Your task to perform on an android device: uninstall "Google Calendar" Image 0: 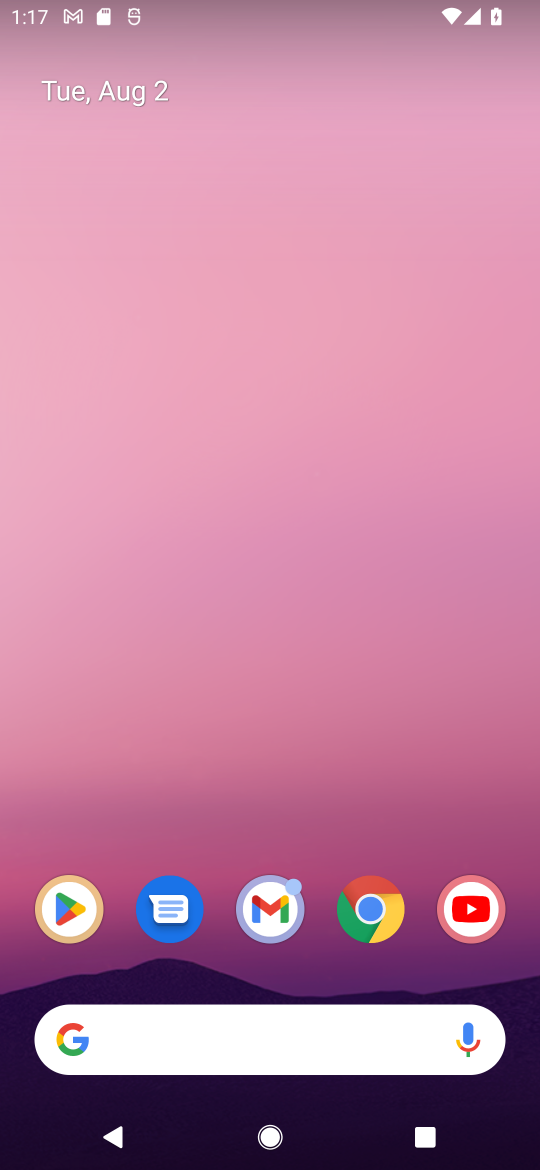
Step 0: click (78, 908)
Your task to perform on an android device: uninstall "Google Calendar" Image 1: 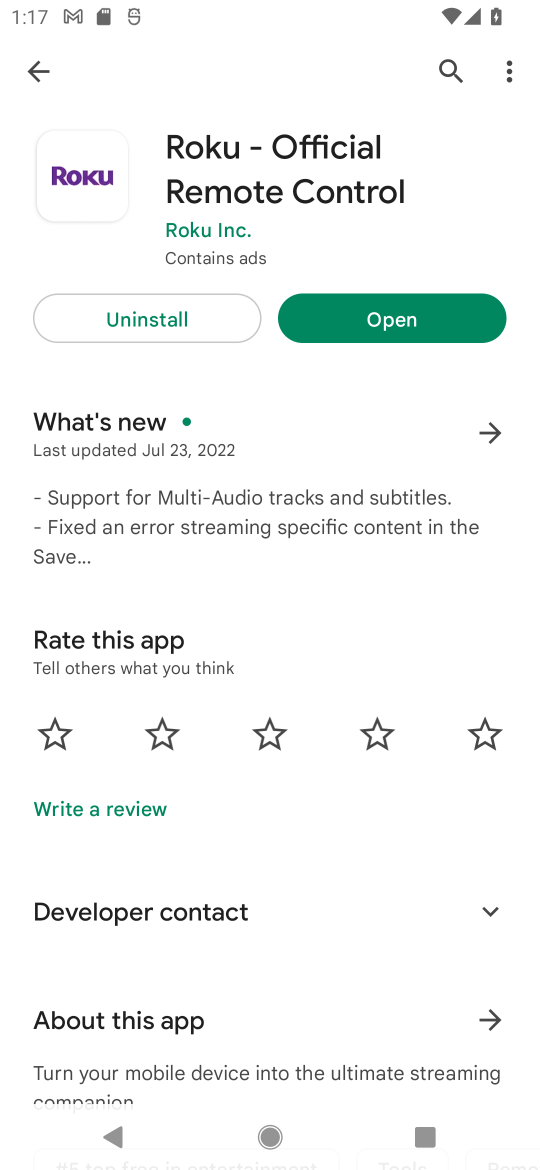
Step 1: click (37, 70)
Your task to perform on an android device: uninstall "Google Calendar" Image 2: 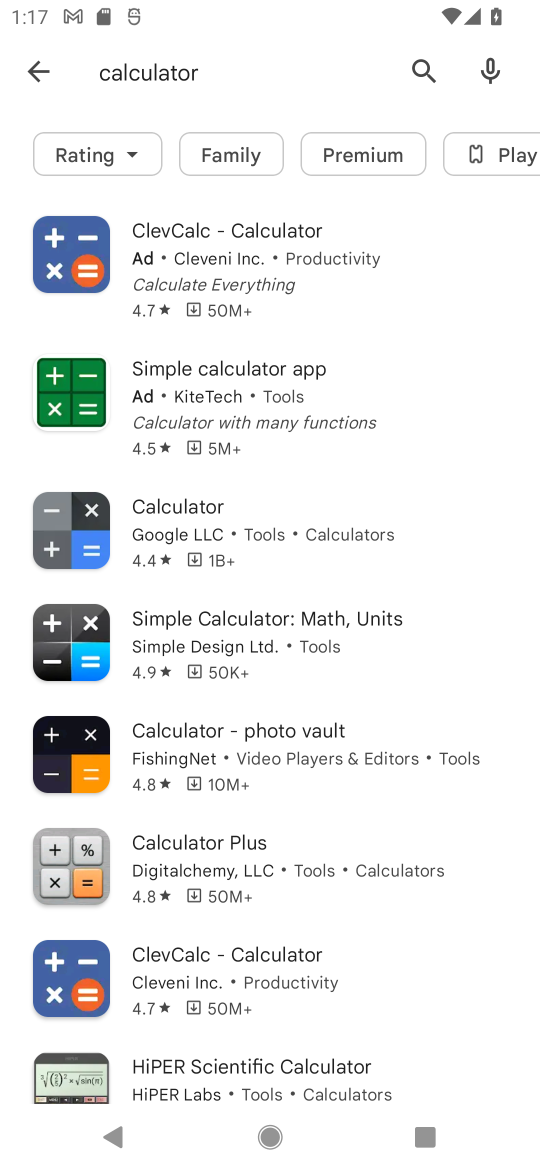
Step 2: click (416, 68)
Your task to perform on an android device: uninstall "Google Calendar" Image 3: 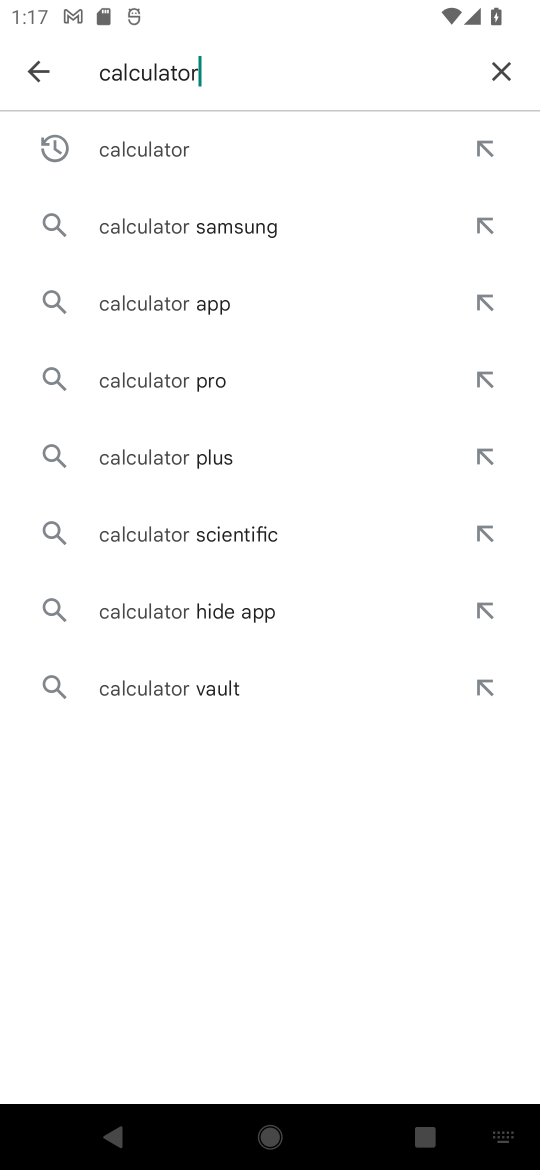
Step 3: click (501, 73)
Your task to perform on an android device: uninstall "Google Calendar" Image 4: 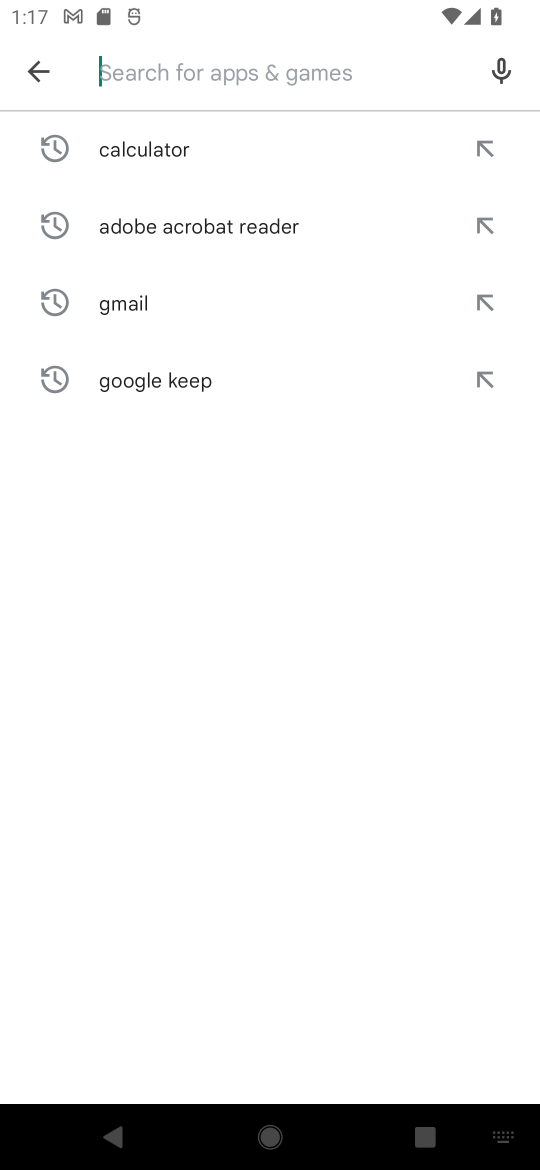
Step 4: type "Google Calendar"
Your task to perform on an android device: uninstall "Google Calendar" Image 5: 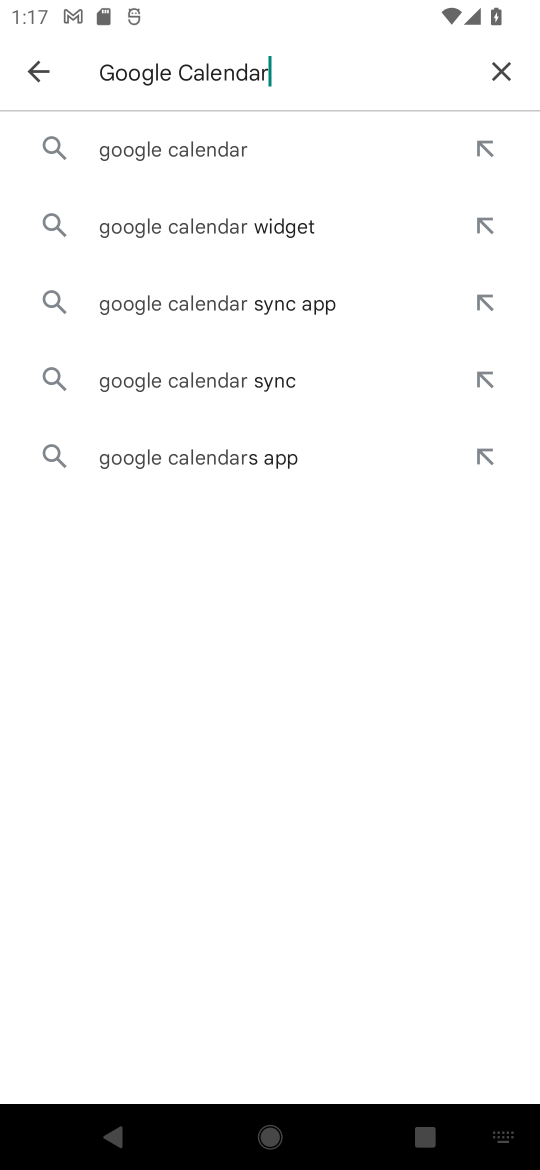
Step 5: click (180, 146)
Your task to perform on an android device: uninstall "Google Calendar" Image 6: 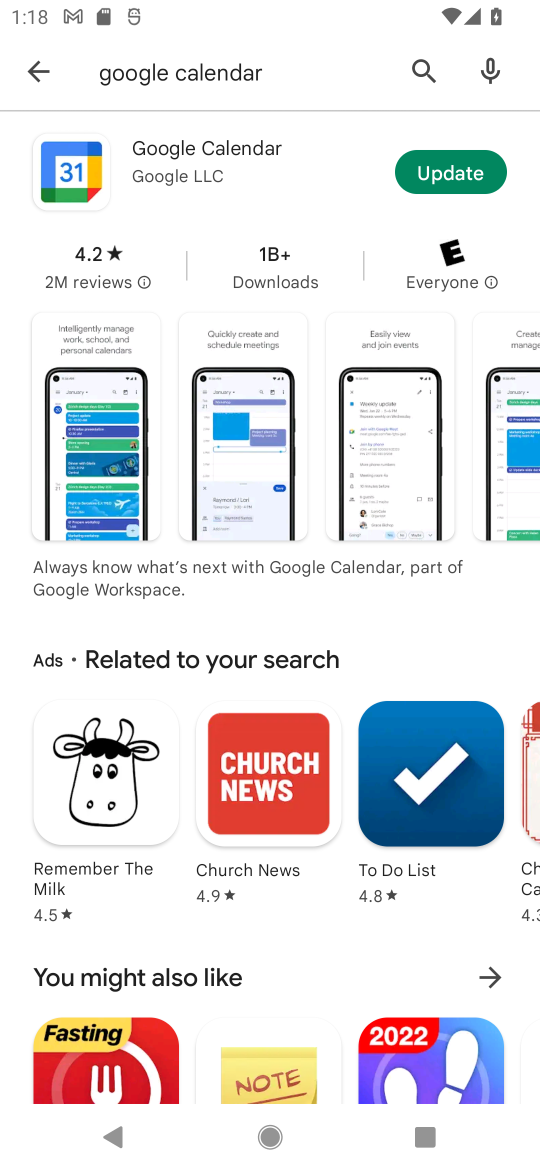
Step 6: click (162, 164)
Your task to perform on an android device: uninstall "Google Calendar" Image 7: 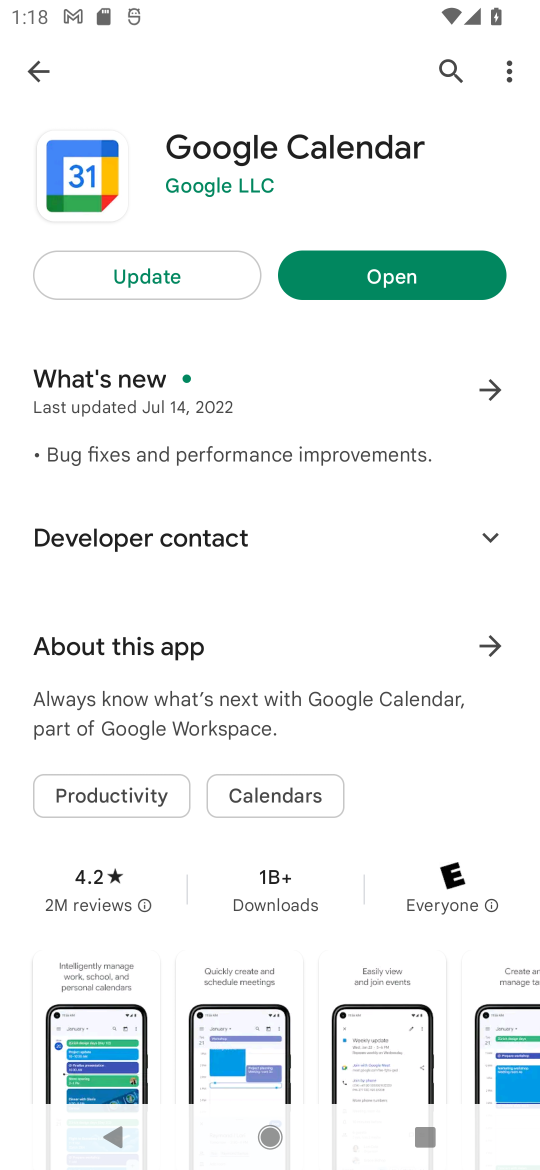
Step 7: task complete